Your task to perform on an android device: find which apps use the phone's location Image 0: 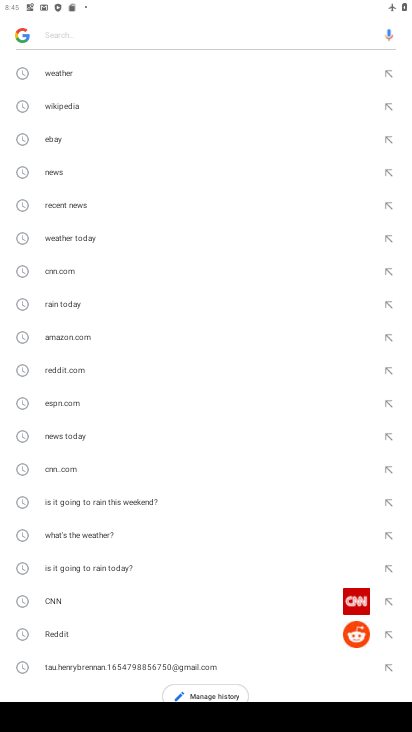
Step 0: press home button
Your task to perform on an android device: find which apps use the phone's location Image 1: 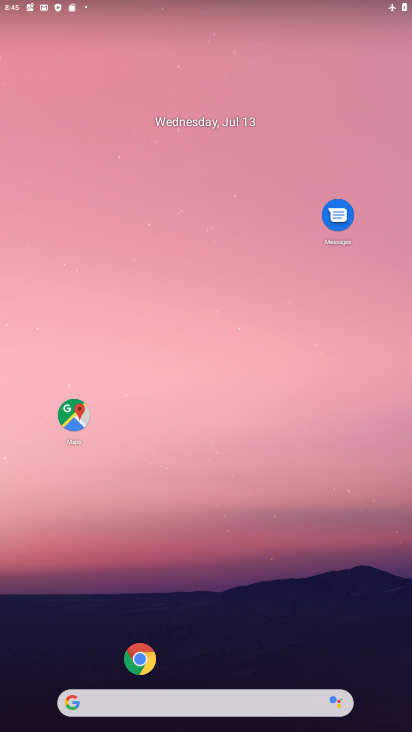
Step 1: click (191, 16)
Your task to perform on an android device: find which apps use the phone's location Image 2: 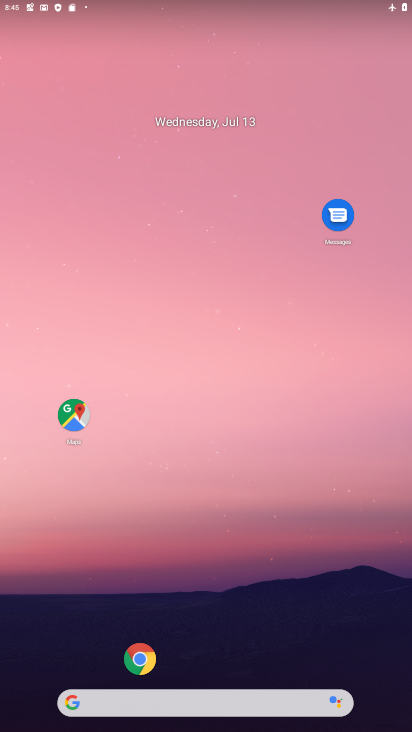
Step 2: drag from (39, 662) to (182, 82)
Your task to perform on an android device: find which apps use the phone's location Image 3: 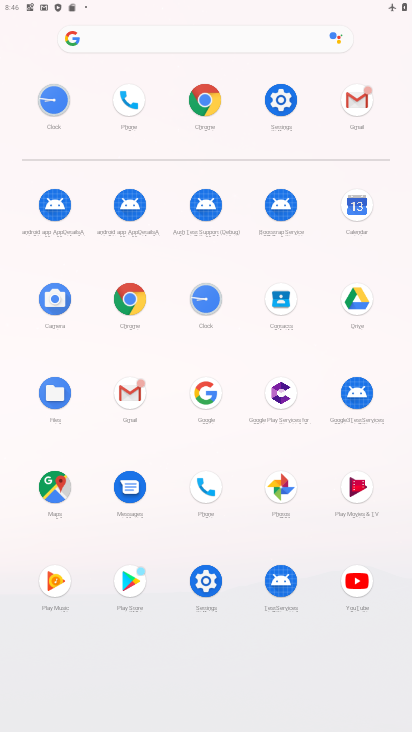
Step 3: click (213, 577)
Your task to perform on an android device: find which apps use the phone's location Image 4: 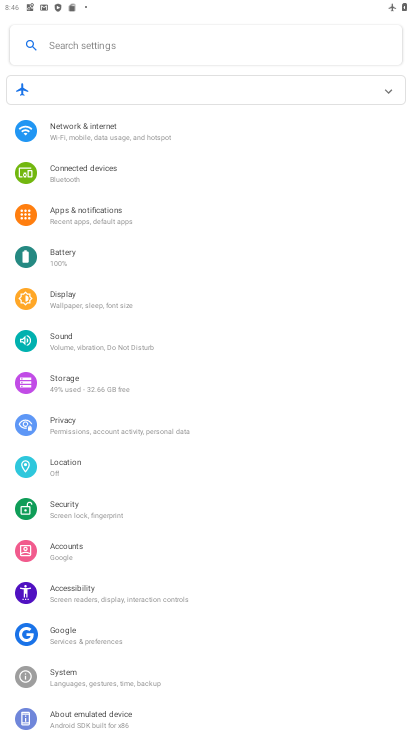
Step 4: click (87, 474)
Your task to perform on an android device: find which apps use the phone's location Image 5: 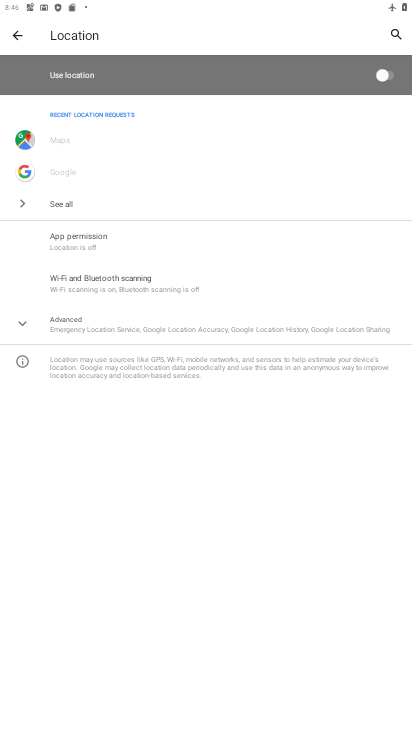
Step 5: click (77, 205)
Your task to perform on an android device: find which apps use the phone's location Image 6: 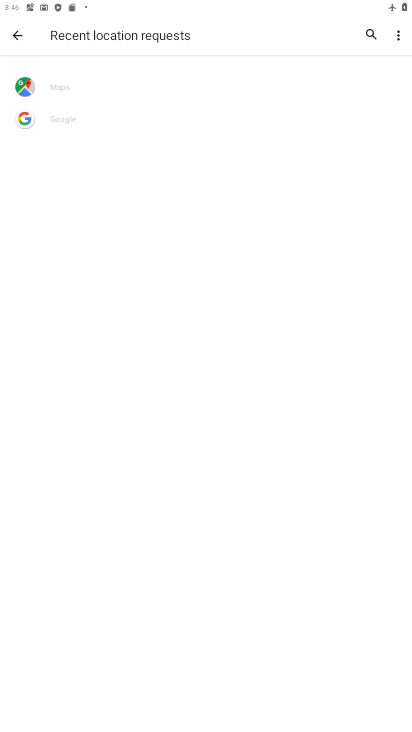
Step 6: click (15, 33)
Your task to perform on an android device: find which apps use the phone's location Image 7: 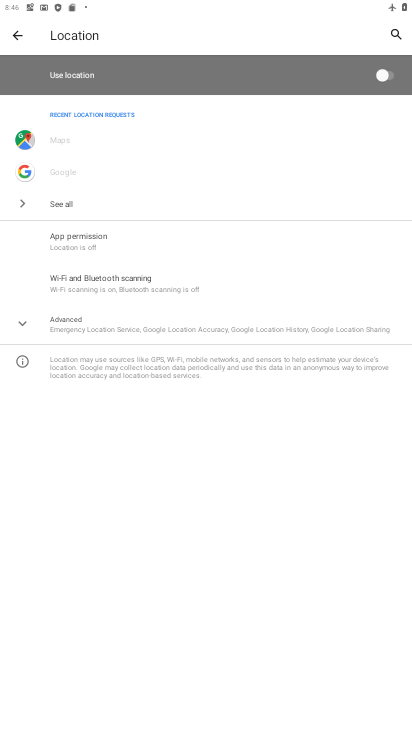
Step 7: click (91, 243)
Your task to perform on an android device: find which apps use the phone's location Image 8: 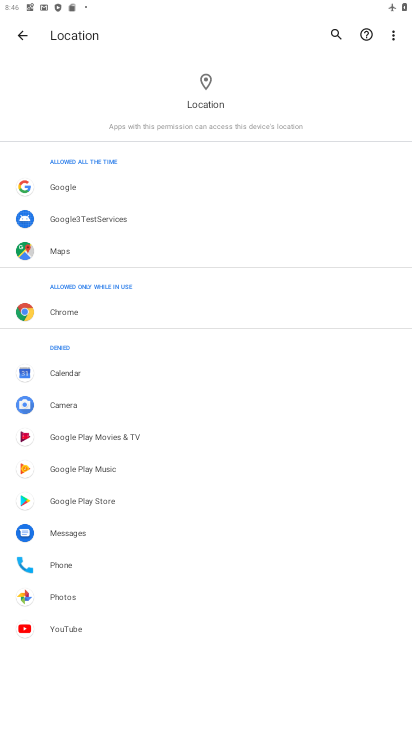
Step 8: task complete